Your task to perform on an android device: Open the web browser Image 0: 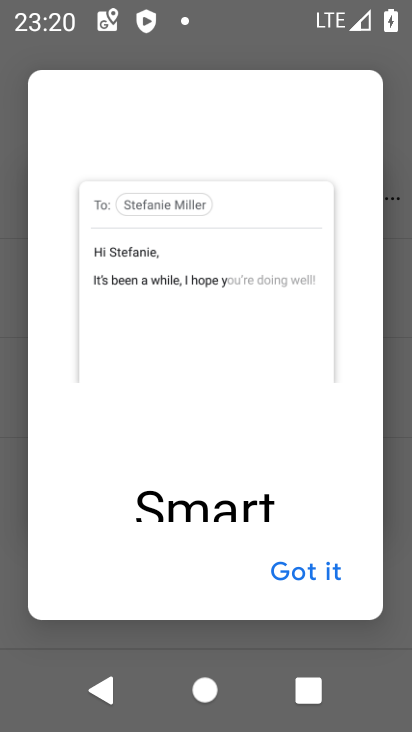
Step 0: press home button
Your task to perform on an android device: Open the web browser Image 1: 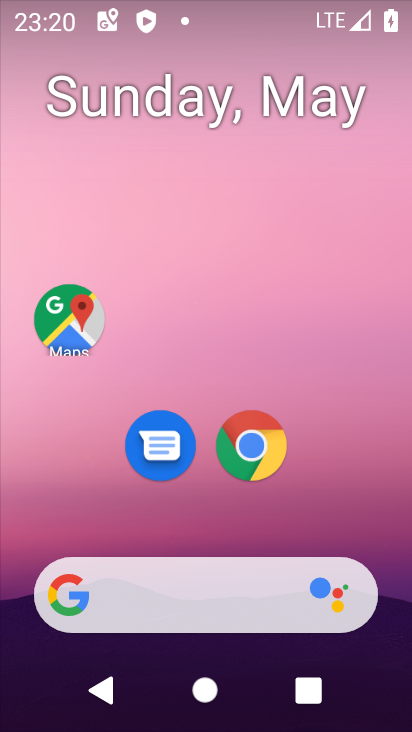
Step 1: click (265, 471)
Your task to perform on an android device: Open the web browser Image 2: 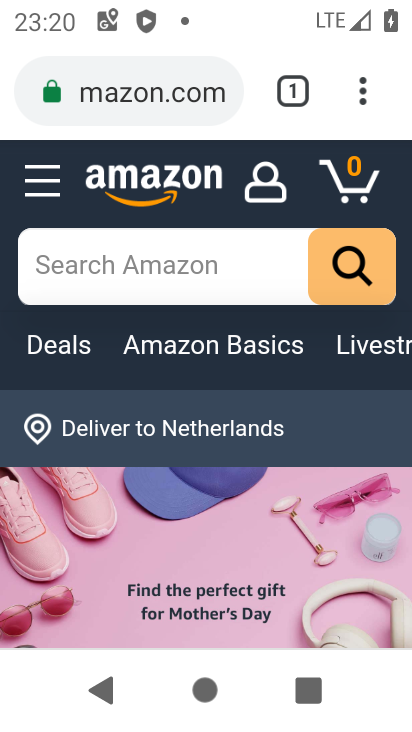
Step 2: task complete